Your task to perform on an android device: open device folders in google photos Image 0: 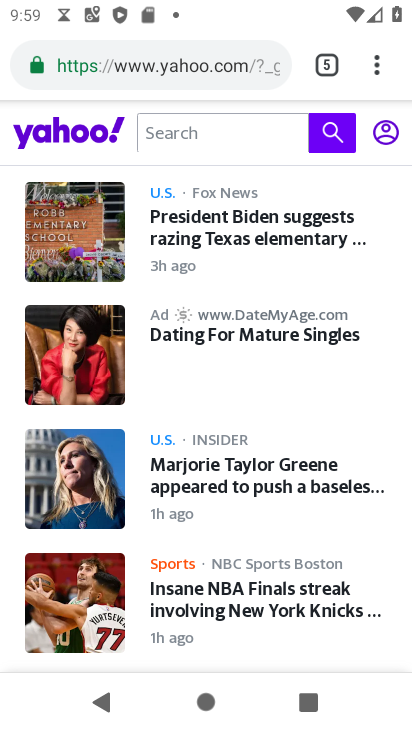
Step 0: press home button
Your task to perform on an android device: open device folders in google photos Image 1: 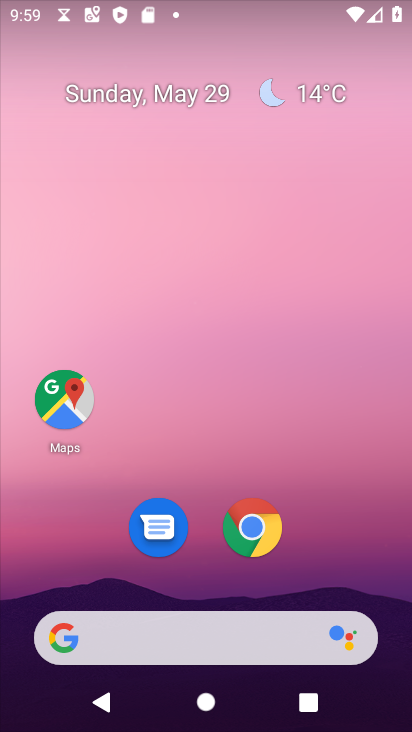
Step 1: click (223, 173)
Your task to perform on an android device: open device folders in google photos Image 2: 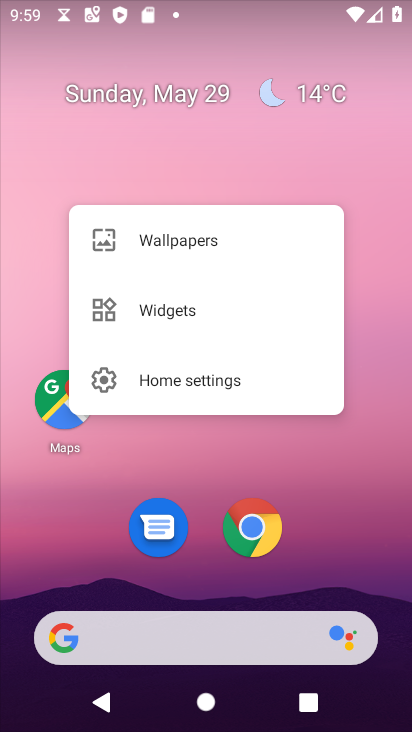
Step 2: drag from (176, 631) to (284, 75)
Your task to perform on an android device: open device folders in google photos Image 3: 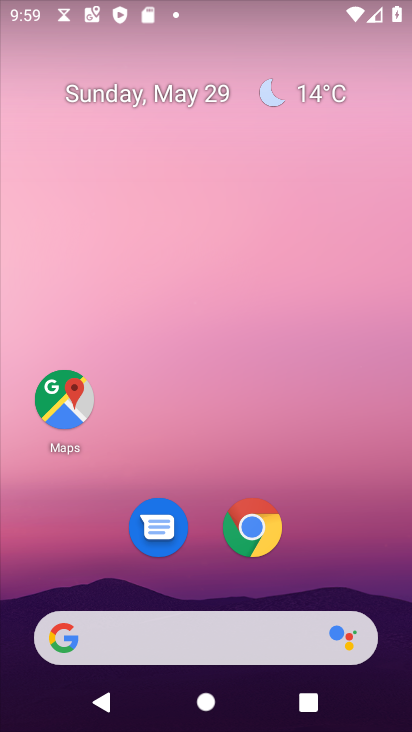
Step 3: drag from (209, 609) to (313, 148)
Your task to perform on an android device: open device folders in google photos Image 4: 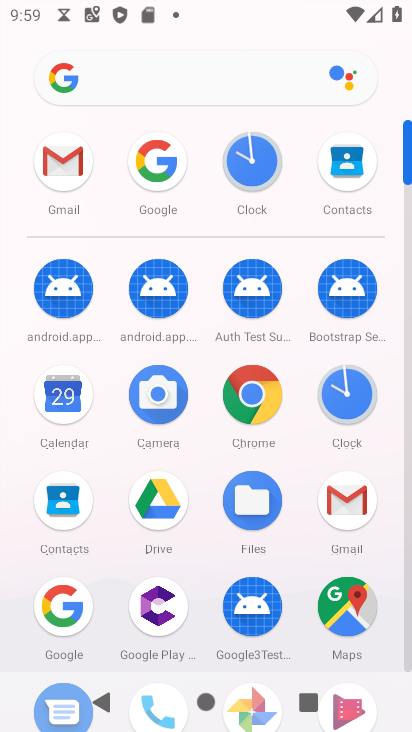
Step 4: drag from (206, 584) to (296, 211)
Your task to perform on an android device: open device folders in google photos Image 5: 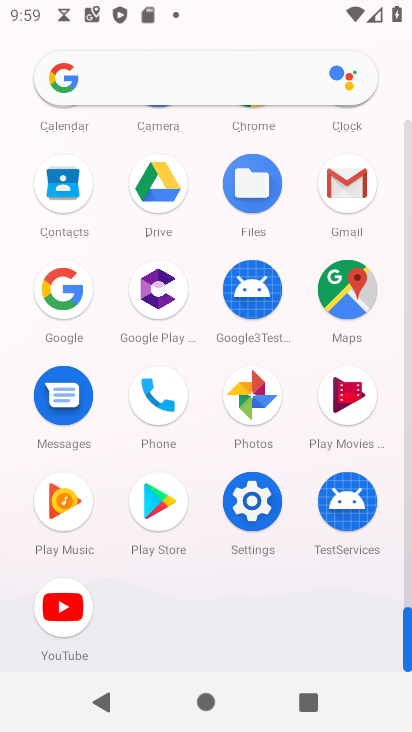
Step 5: click (256, 396)
Your task to perform on an android device: open device folders in google photos Image 6: 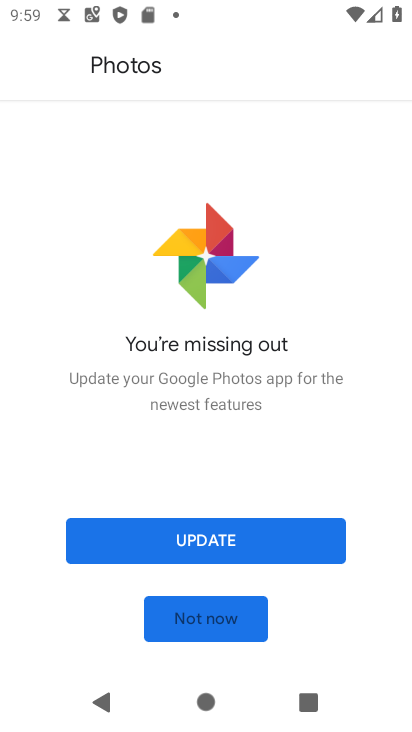
Step 6: click (303, 414)
Your task to perform on an android device: open device folders in google photos Image 7: 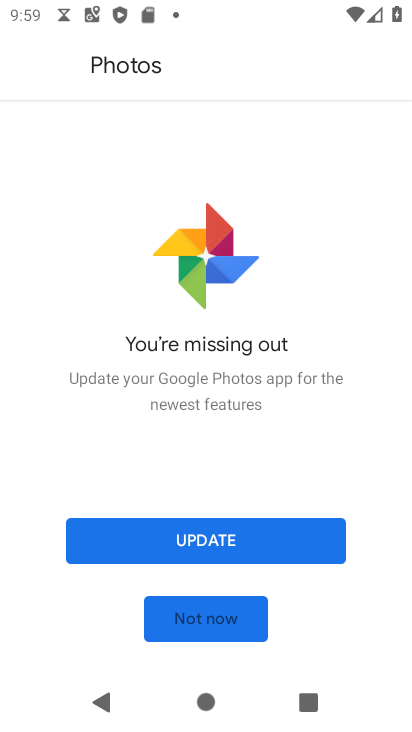
Step 7: click (255, 537)
Your task to perform on an android device: open device folders in google photos Image 8: 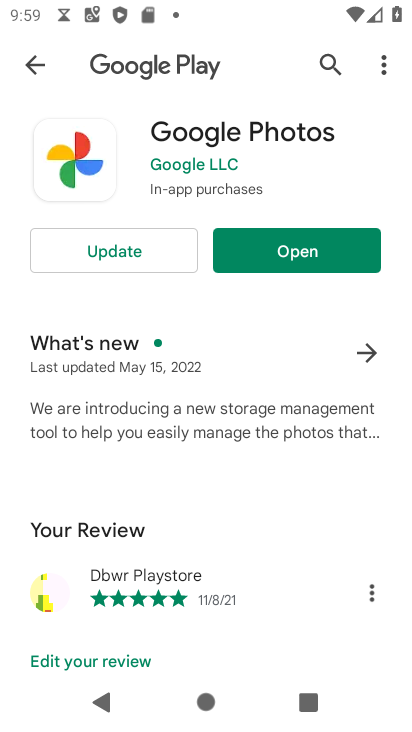
Step 8: click (312, 255)
Your task to perform on an android device: open device folders in google photos Image 9: 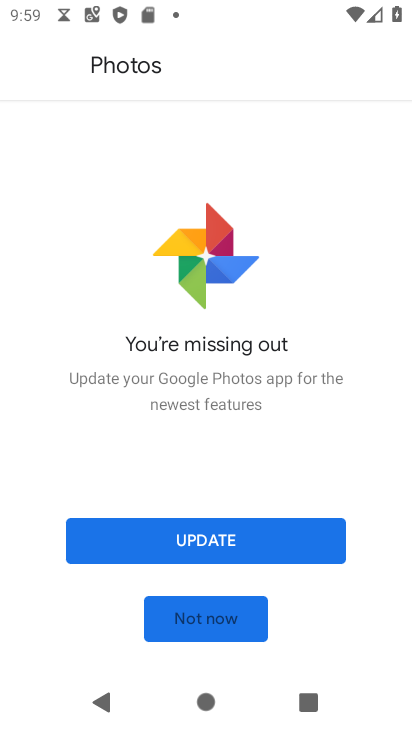
Step 9: click (220, 545)
Your task to perform on an android device: open device folders in google photos Image 10: 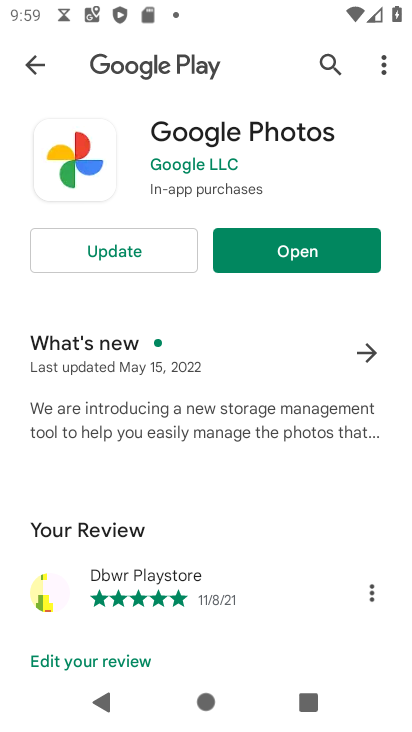
Step 10: click (163, 247)
Your task to perform on an android device: open device folders in google photos Image 11: 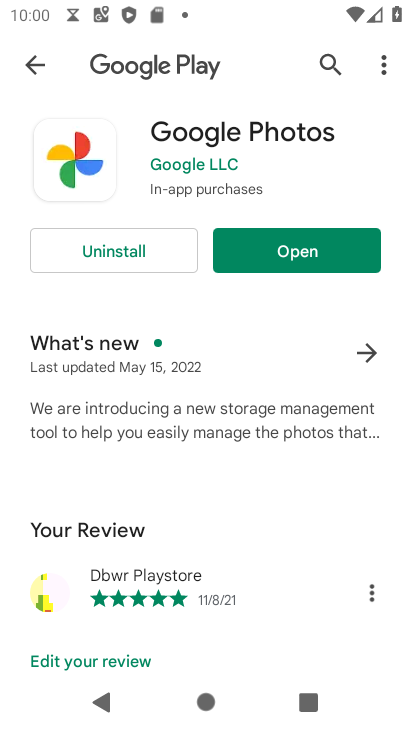
Step 11: click (263, 253)
Your task to perform on an android device: open device folders in google photos Image 12: 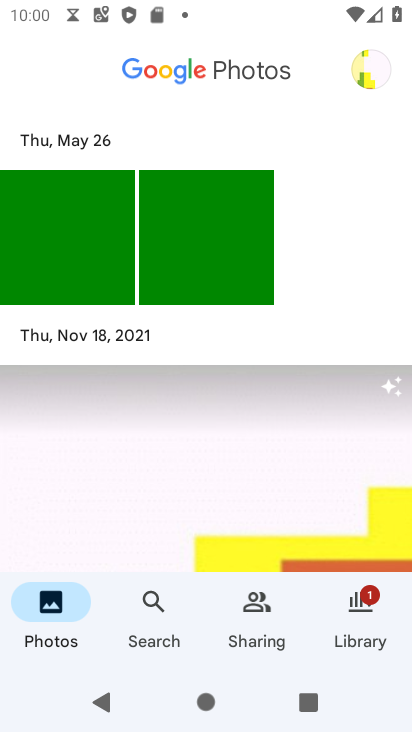
Step 12: click (374, 70)
Your task to perform on an android device: open device folders in google photos Image 13: 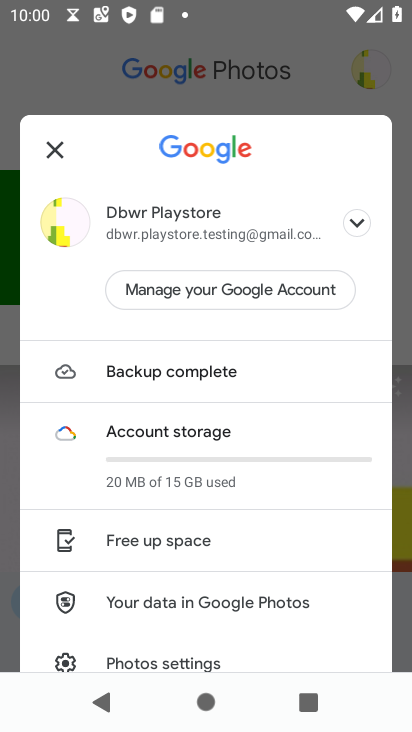
Step 13: drag from (197, 599) to (227, 367)
Your task to perform on an android device: open device folders in google photos Image 14: 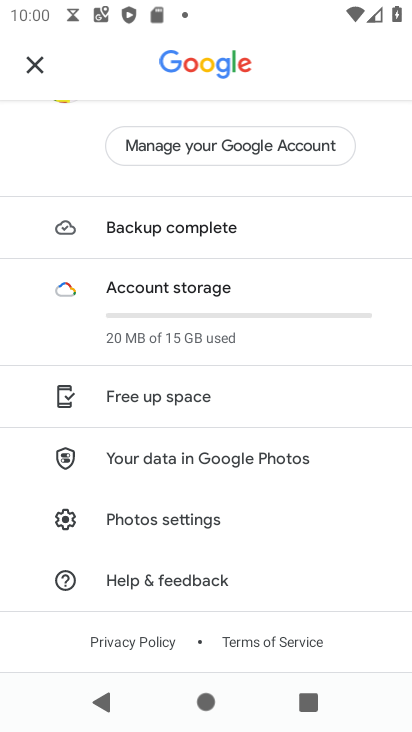
Step 14: click (162, 523)
Your task to perform on an android device: open device folders in google photos Image 15: 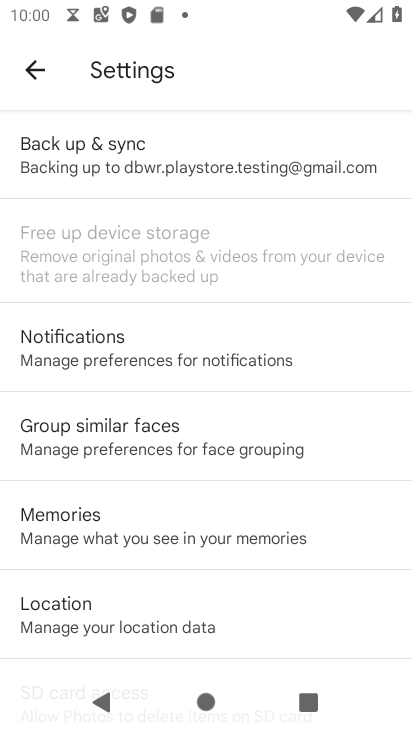
Step 15: task complete